Your task to perform on an android device: show emergency info Image 0: 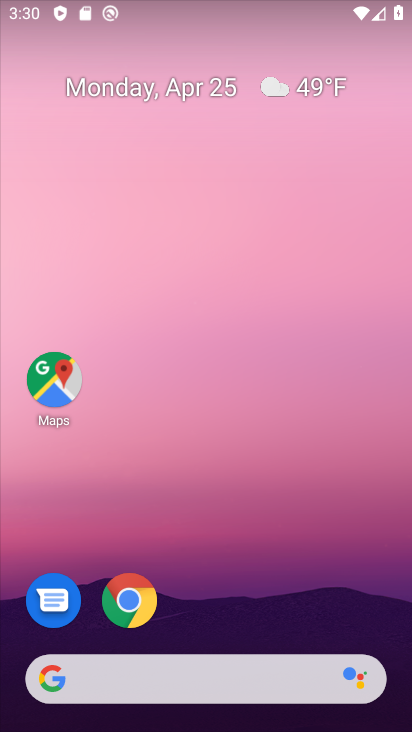
Step 0: drag from (211, 555) to (243, 15)
Your task to perform on an android device: show emergency info Image 1: 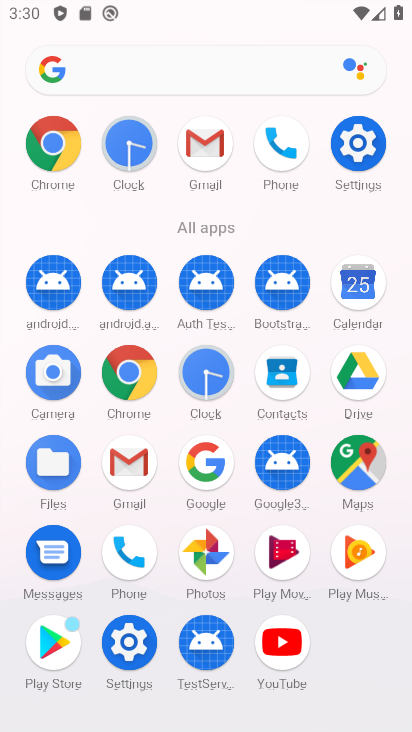
Step 1: click (355, 143)
Your task to perform on an android device: show emergency info Image 2: 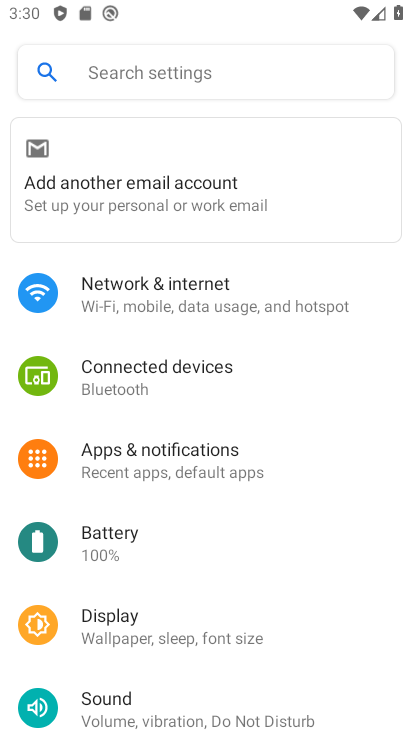
Step 2: drag from (185, 600) to (221, 83)
Your task to perform on an android device: show emergency info Image 3: 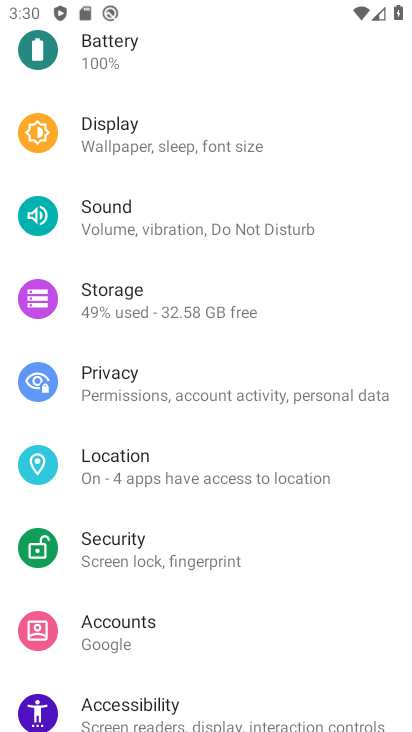
Step 3: drag from (204, 633) to (230, 73)
Your task to perform on an android device: show emergency info Image 4: 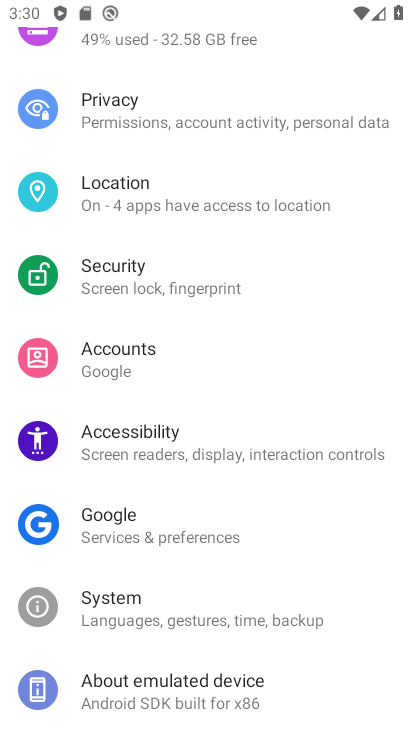
Step 4: click (168, 682)
Your task to perform on an android device: show emergency info Image 5: 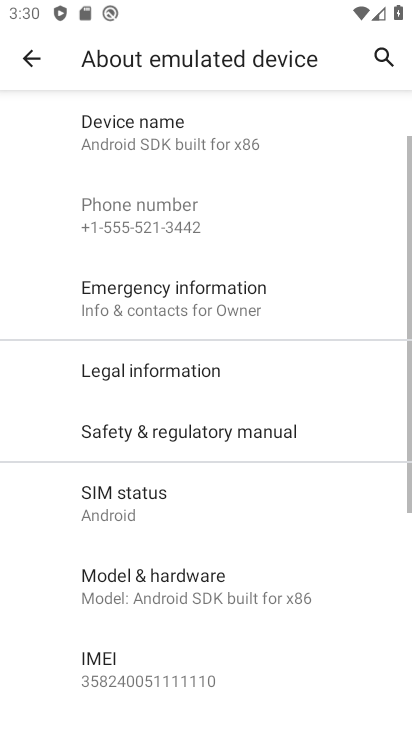
Step 5: click (189, 297)
Your task to perform on an android device: show emergency info Image 6: 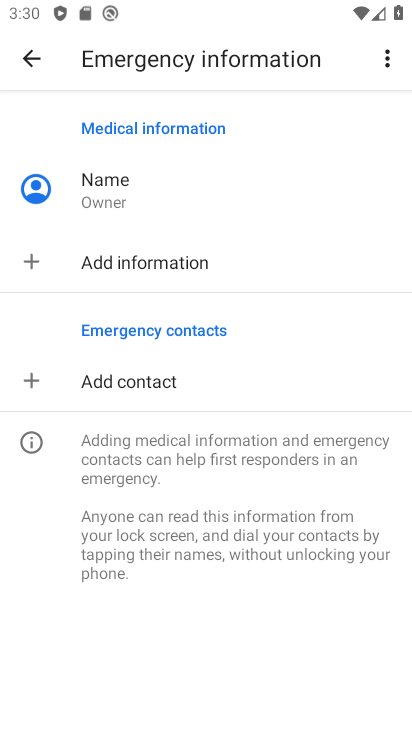
Step 6: task complete